Your task to perform on an android device: Open the map Image 0: 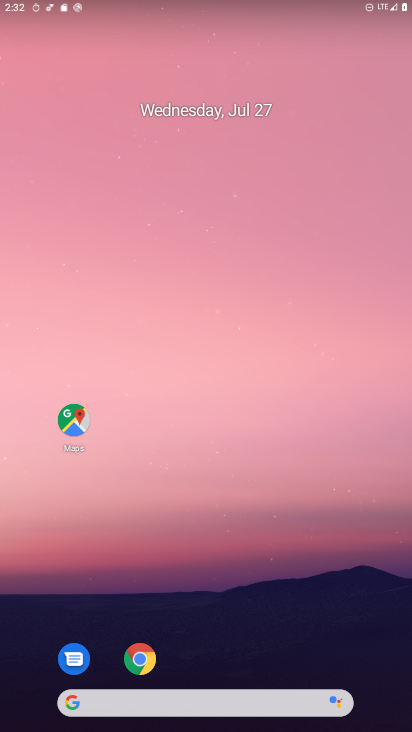
Step 0: drag from (294, 615) to (299, 17)
Your task to perform on an android device: Open the map Image 1: 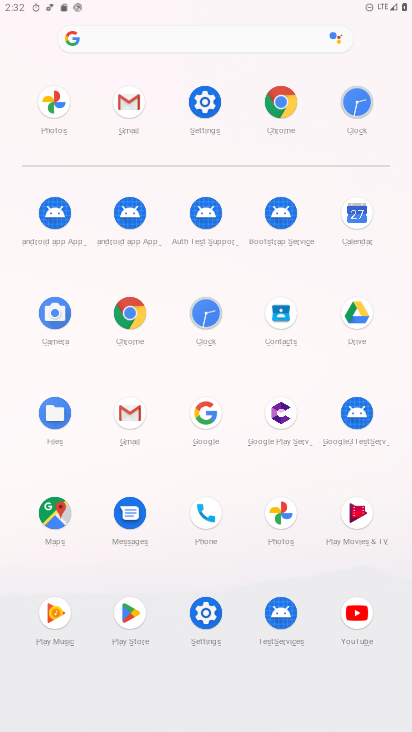
Step 1: click (55, 516)
Your task to perform on an android device: Open the map Image 2: 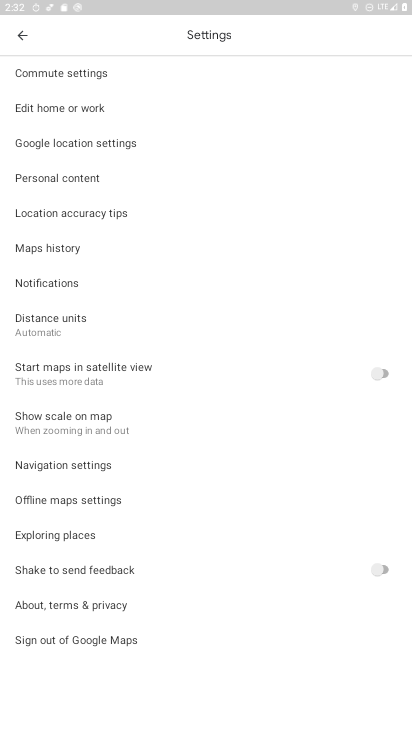
Step 2: task complete